Your task to perform on an android device: toggle show notifications on the lock screen Image 0: 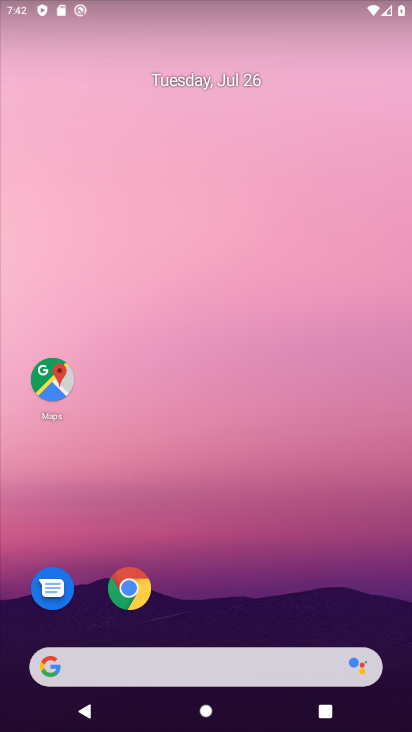
Step 0: drag from (229, 639) to (249, 374)
Your task to perform on an android device: toggle show notifications on the lock screen Image 1: 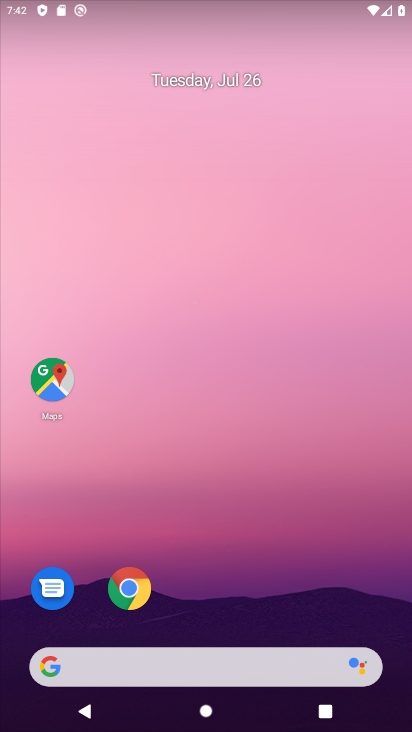
Step 1: drag from (251, 627) to (245, 288)
Your task to perform on an android device: toggle show notifications on the lock screen Image 2: 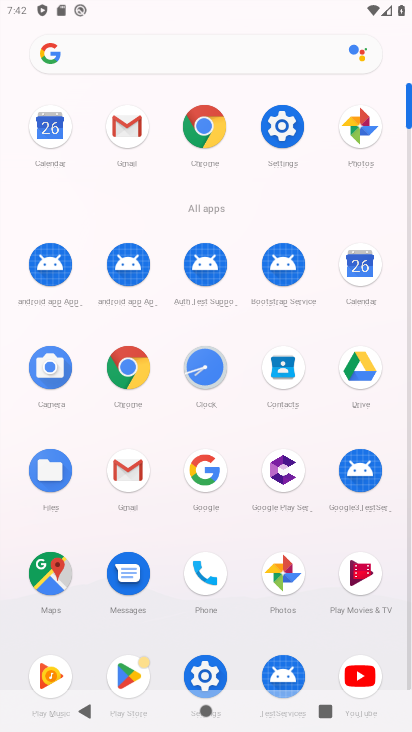
Step 2: click (276, 115)
Your task to perform on an android device: toggle show notifications on the lock screen Image 3: 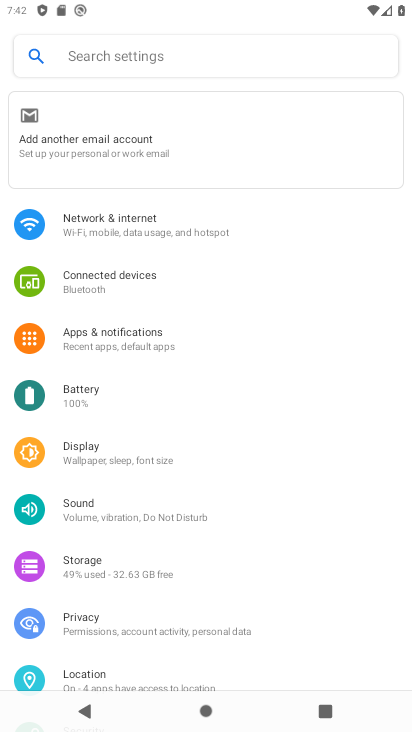
Step 3: click (86, 627)
Your task to perform on an android device: toggle show notifications on the lock screen Image 4: 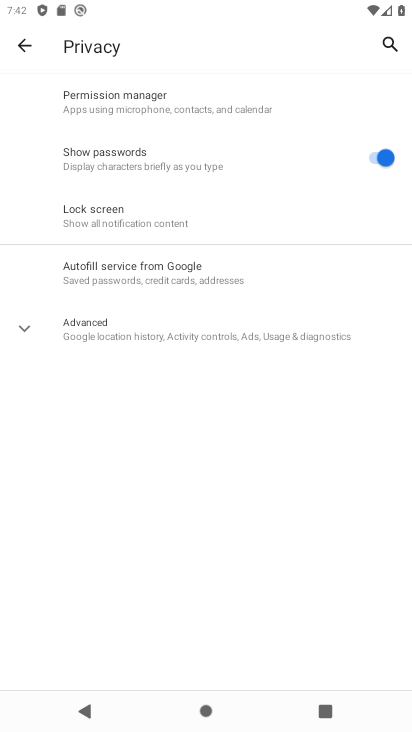
Step 4: click (89, 204)
Your task to perform on an android device: toggle show notifications on the lock screen Image 5: 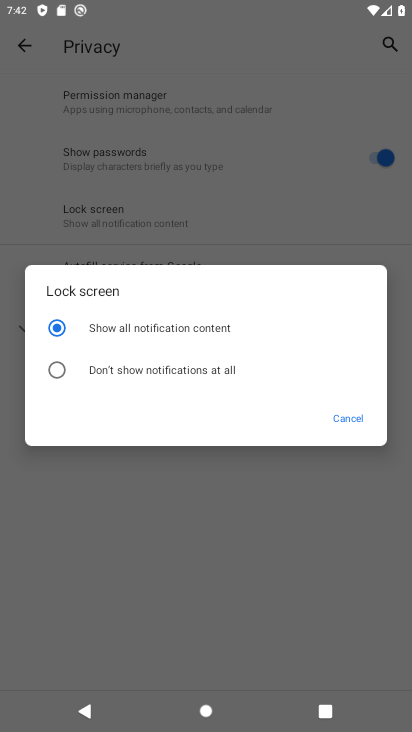
Step 5: click (80, 371)
Your task to perform on an android device: toggle show notifications on the lock screen Image 6: 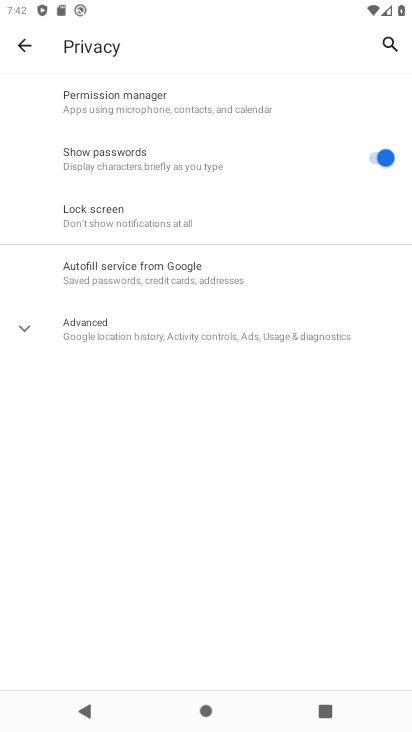
Step 6: task complete